Your task to perform on an android device: Open a new Chrome incognito tab Image 0: 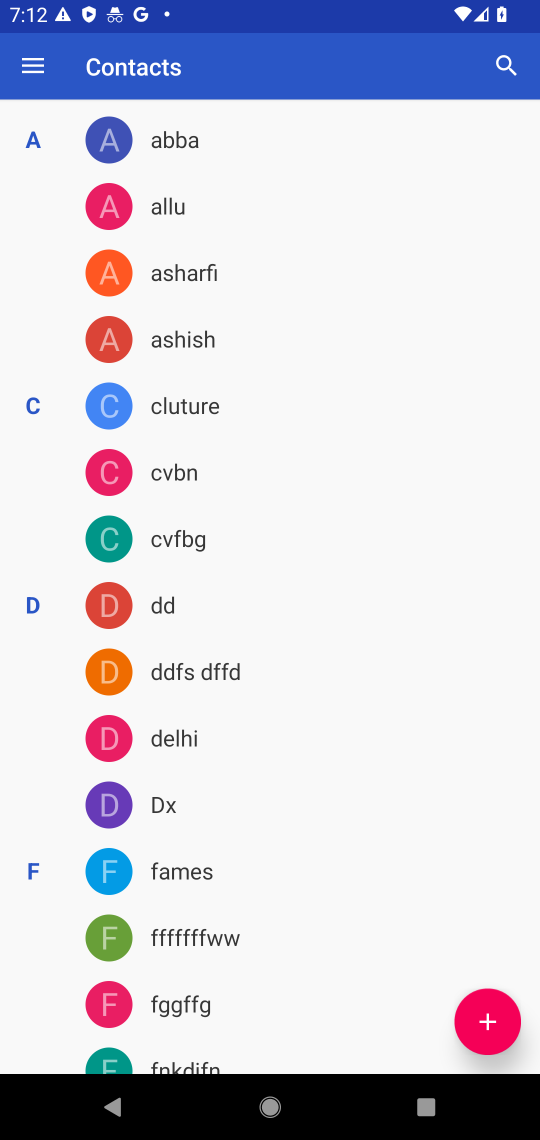
Step 0: press home button
Your task to perform on an android device: Open a new Chrome incognito tab Image 1: 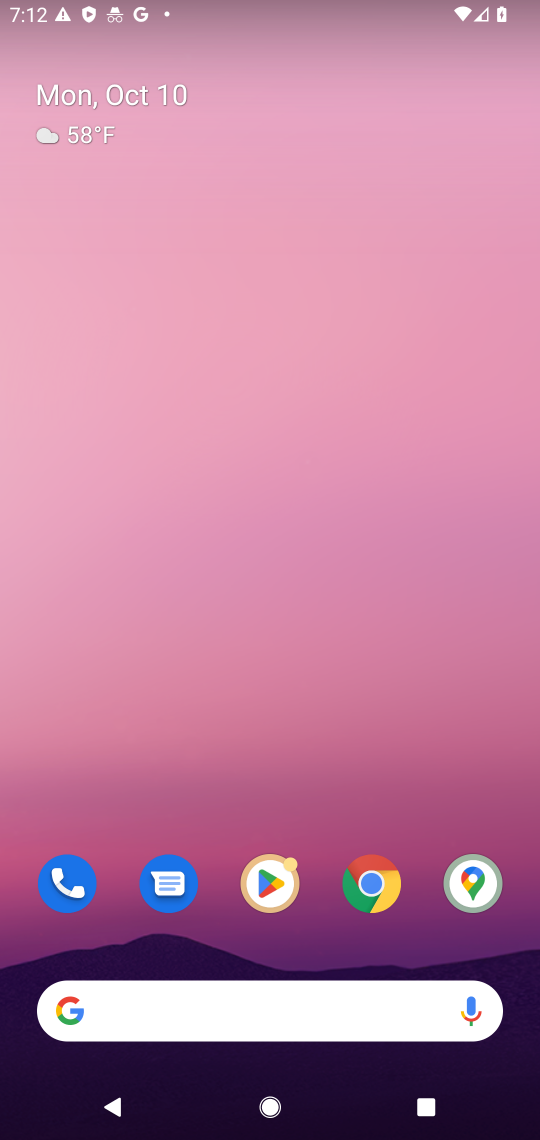
Step 1: drag from (291, 995) to (439, 120)
Your task to perform on an android device: Open a new Chrome incognito tab Image 2: 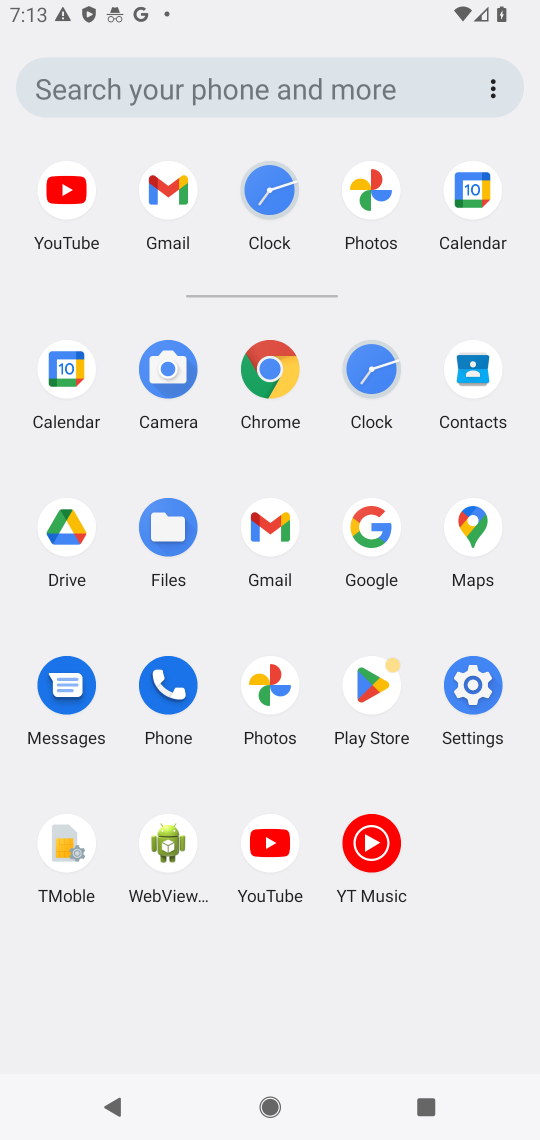
Step 2: click (282, 407)
Your task to perform on an android device: Open a new Chrome incognito tab Image 3: 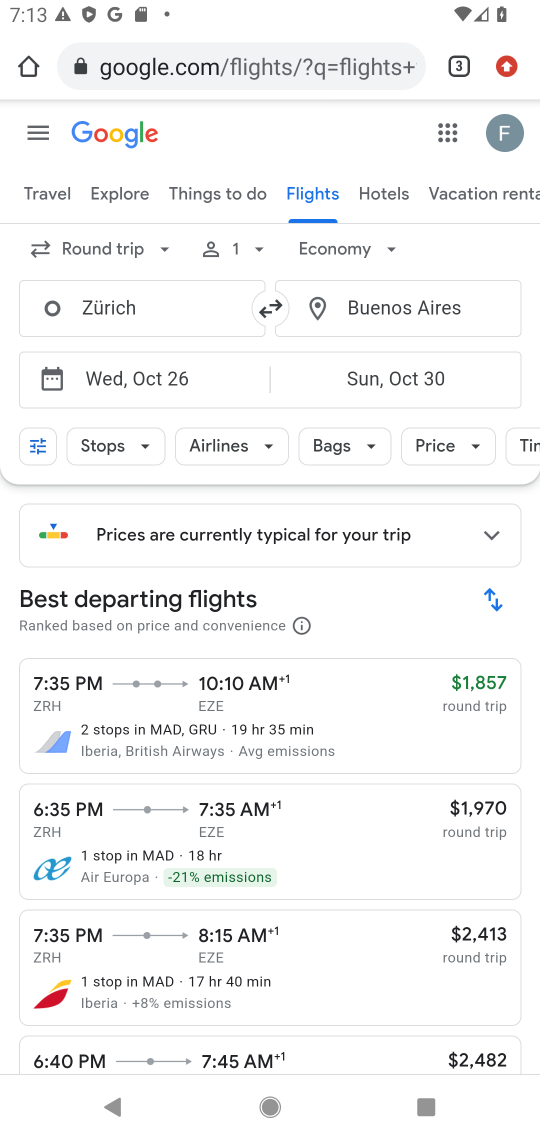
Step 3: click (450, 88)
Your task to perform on an android device: Open a new Chrome incognito tab Image 4: 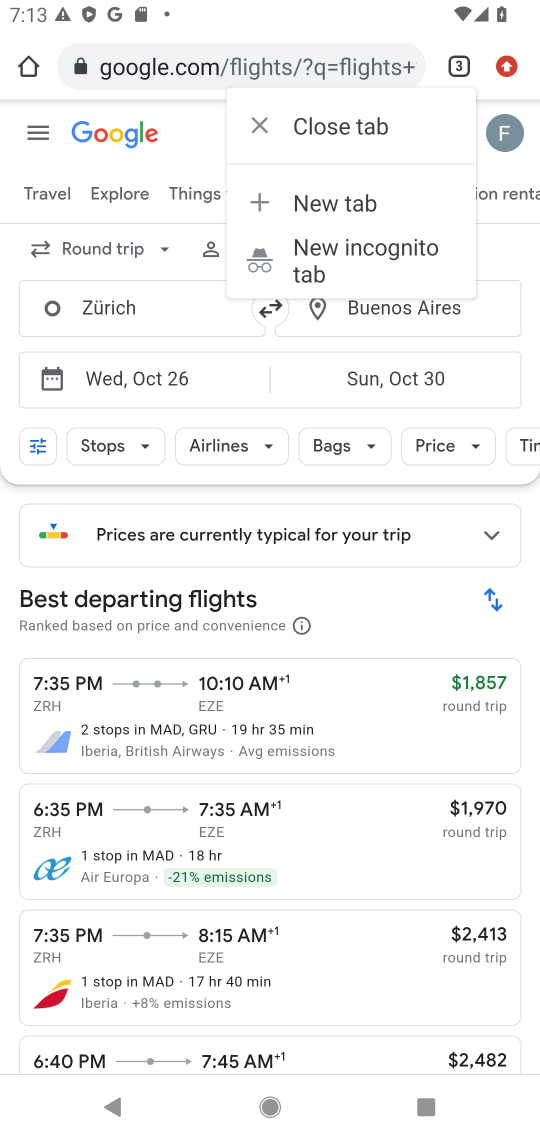
Step 4: click (512, 76)
Your task to perform on an android device: Open a new Chrome incognito tab Image 5: 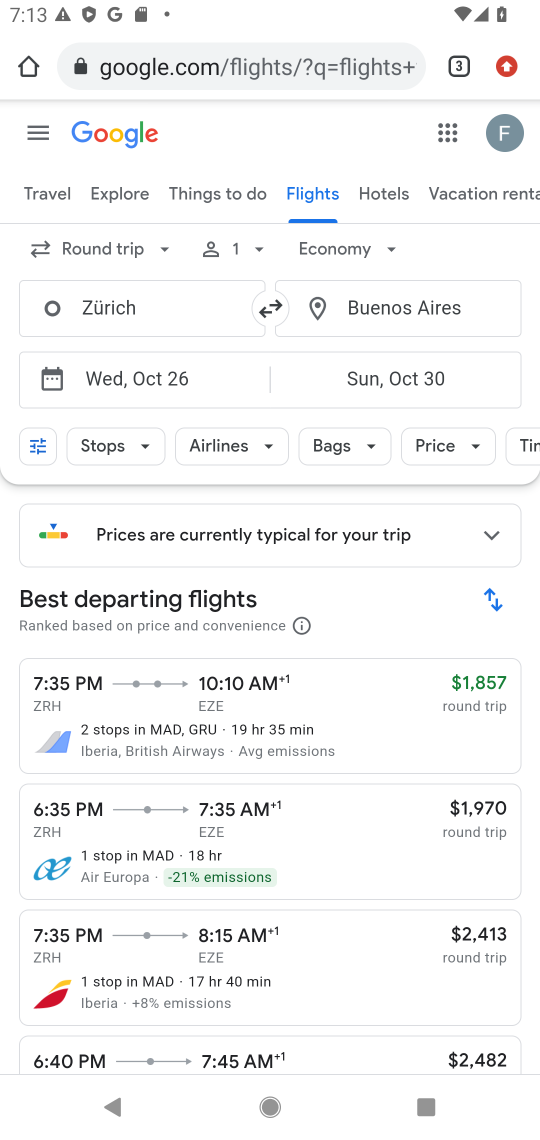
Step 5: click (512, 76)
Your task to perform on an android device: Open a new Chrome incognito tab Image 6: 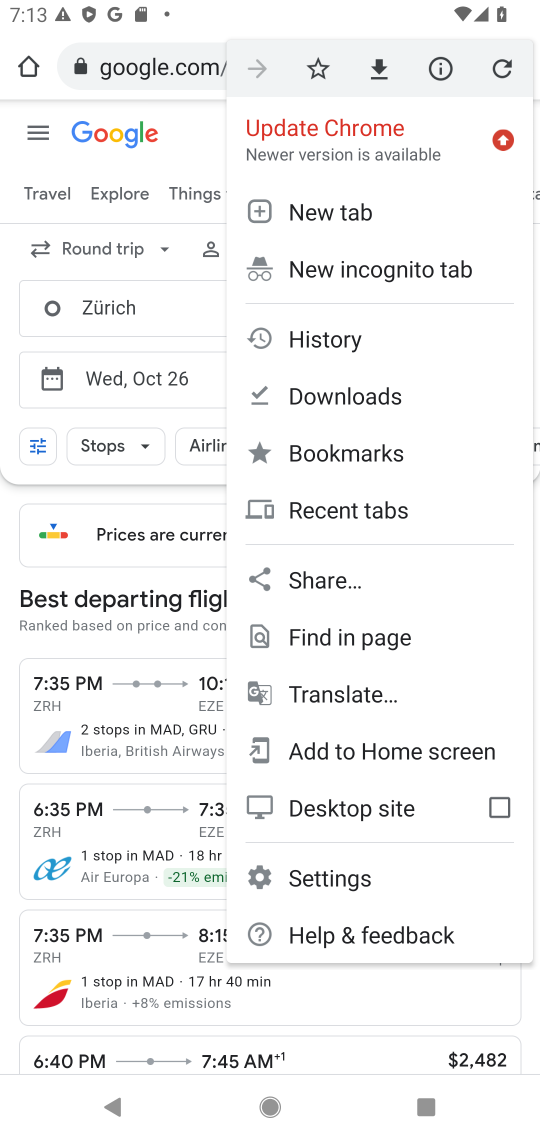
Step 6: click (412, 273)
Your task to perform on an android device: Open a new Chrome incognito tab Image 7: 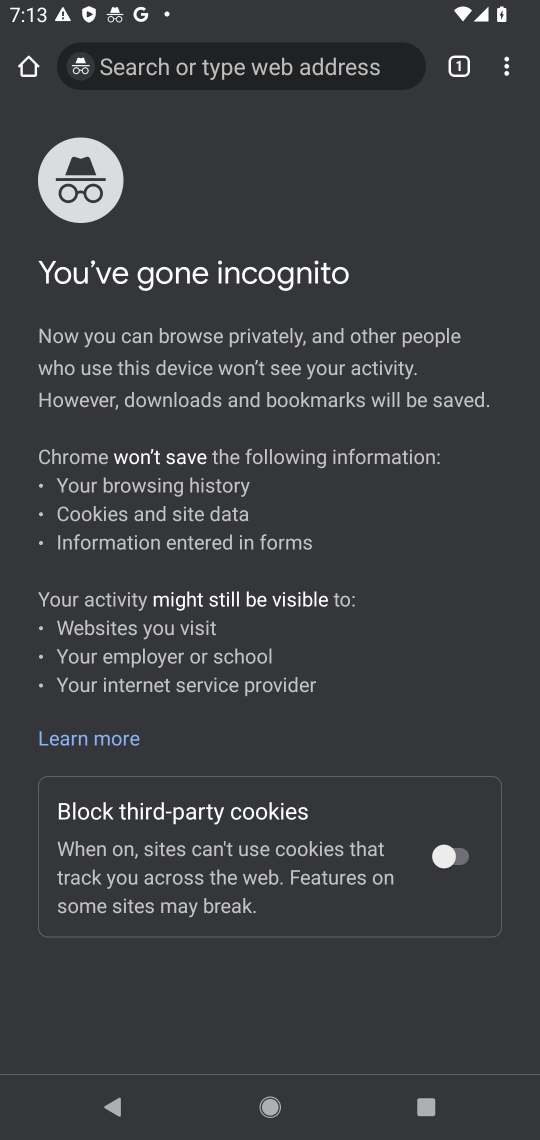
Step 7: task complete